Your task to perform on an android device: delete a single message in the gmail app Image 0: 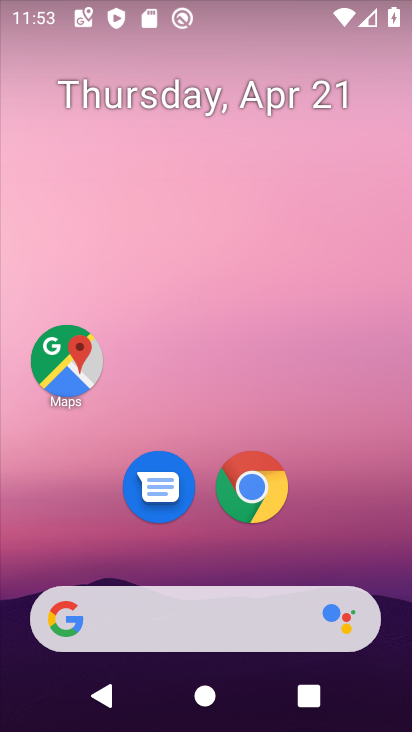
Step 0: drag from (207, 533) to (194, 110)
Your task to perform on an android device: delete a single message in the gmail app Image 1: 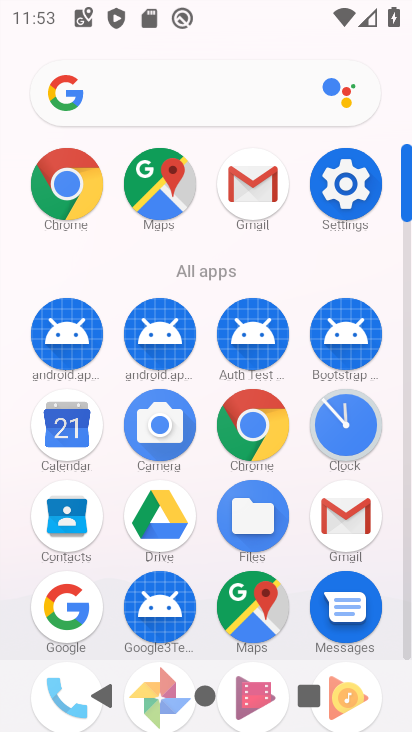
Step 1: click (260, 166)
Your task to perform on an android device: delete a single message in the gmail app Image 2: 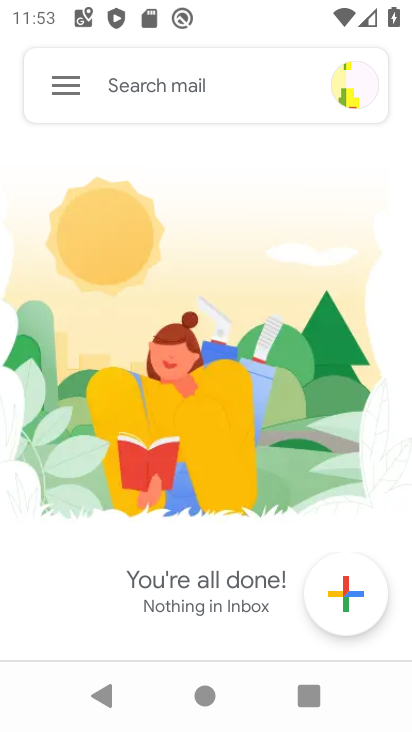
Step 2: click (57, 82)
Your task to perform on an android device: delete a single message in the gmail app Image 3: 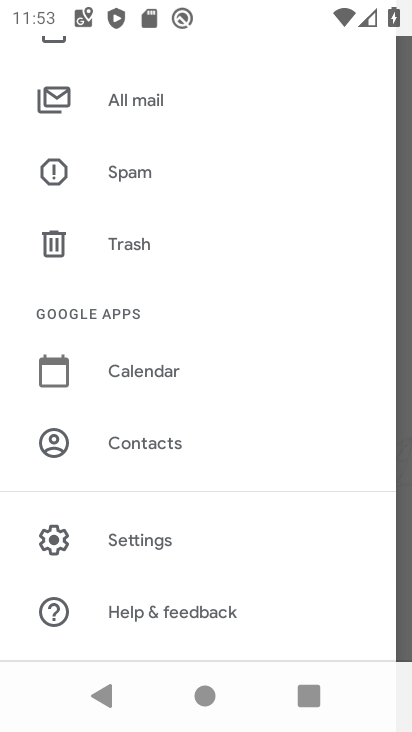
Step 3: click (74, 90)
Your task to perform on an android device: delete a single message in the gmail app Image 4: 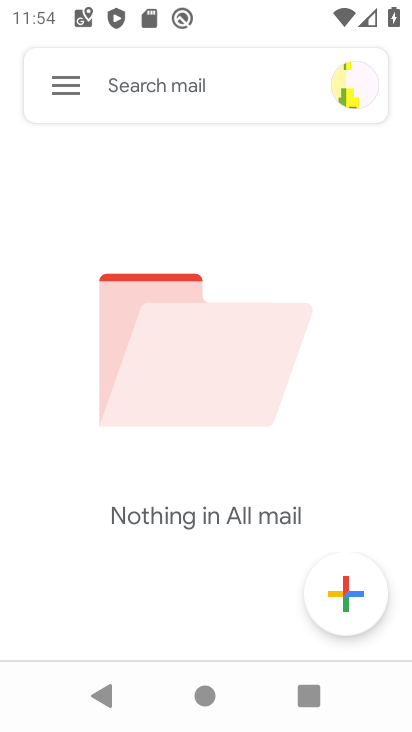
Step 4: task complete